Your task to perform on an android device: Go to Google maps Image 0: 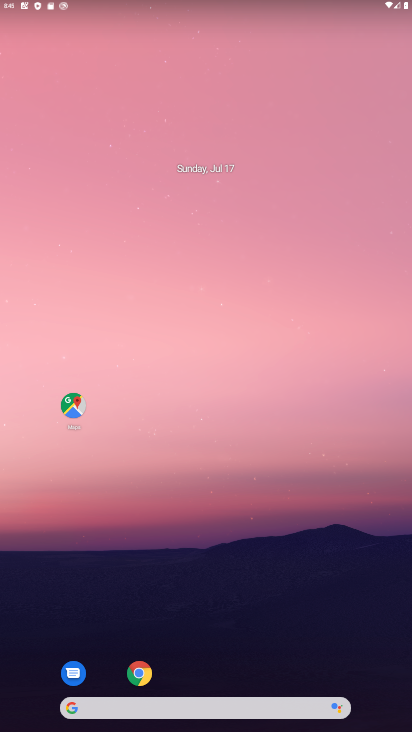
Step 0: drag from (243, 667) to (285, 69)
Your task to perform on an android device: Go to Google maps Image 1: 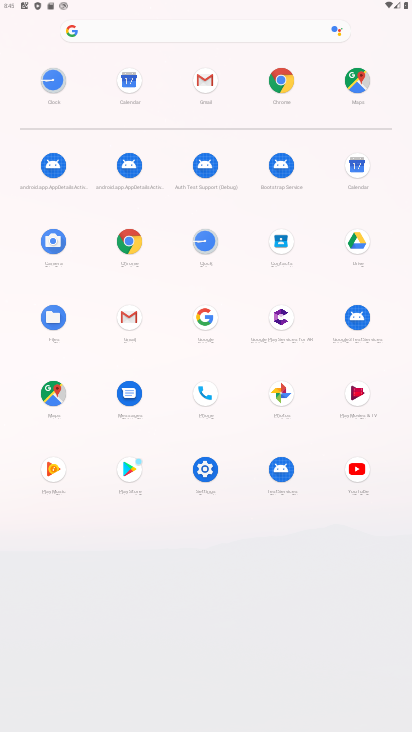
Step 1: drag from (246, 410) to (238, 64)
Your task to perform on an android device: Go to Google maps Image 2: 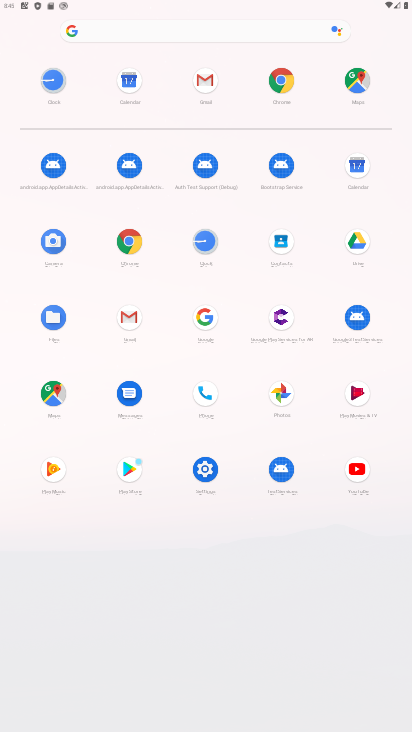
Step 2: drag from (215, 549) to (241, 106)
Your task to perform on an android device: Go to Google maps Image 3: 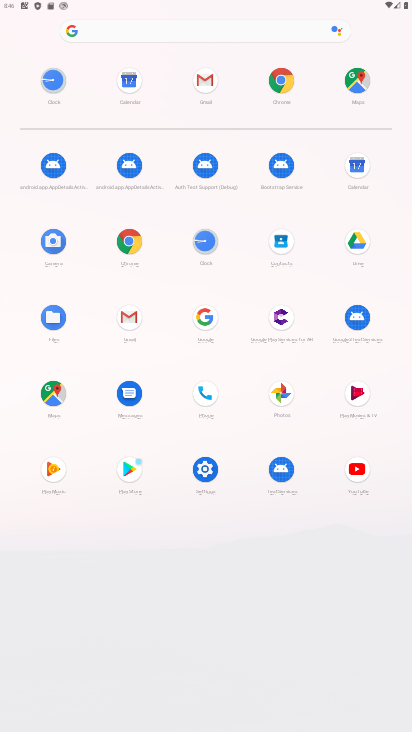
Step 3: click (52, 395)
Your task to perform on an android device: Go to Google maps Image 4: 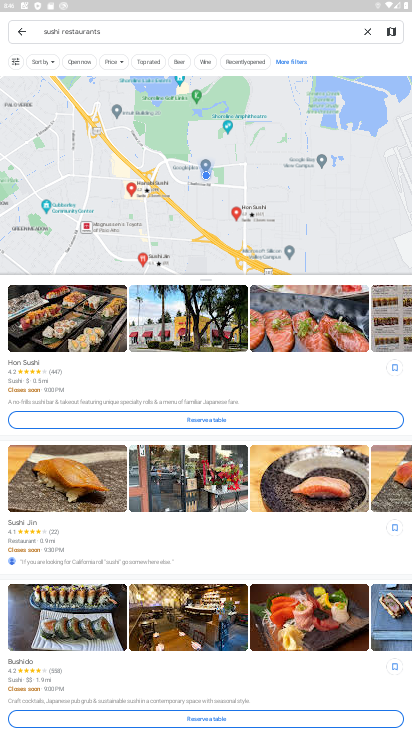
Step 4: click (58, 399)
Your task to perform on an android device: Go to Google maps Image 5: 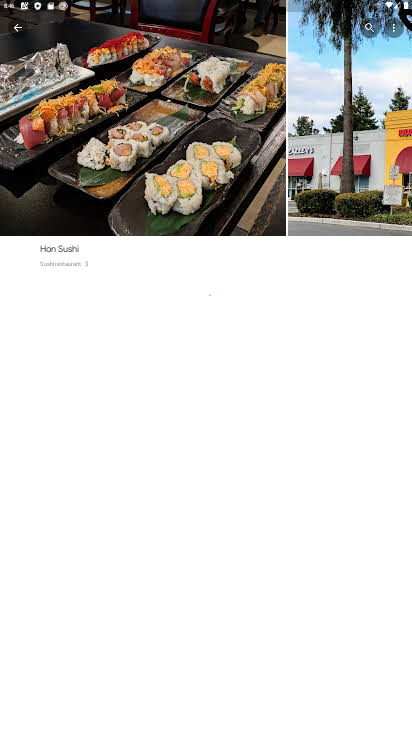
Step 5: click (40, 391)
Your task to perform on an android device: Go to Google maps Image 6: 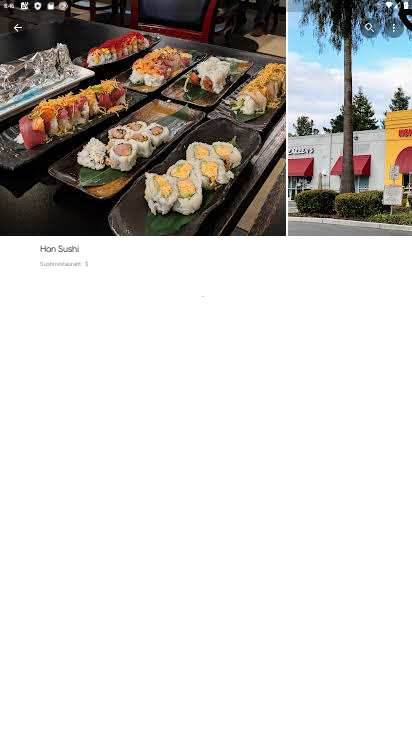
Step 6: click (56, 392)
Your task to perform on an android device: Go to Google maps Image 7: 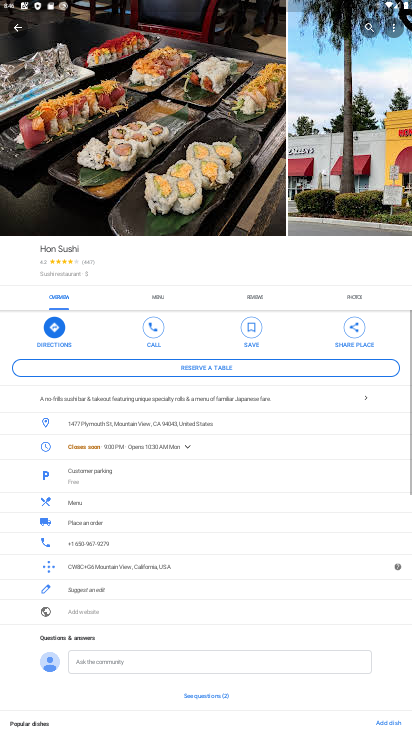
Step 7: click (56, 394)
Your task to perform on an android device: Go to Google maps Image 8: 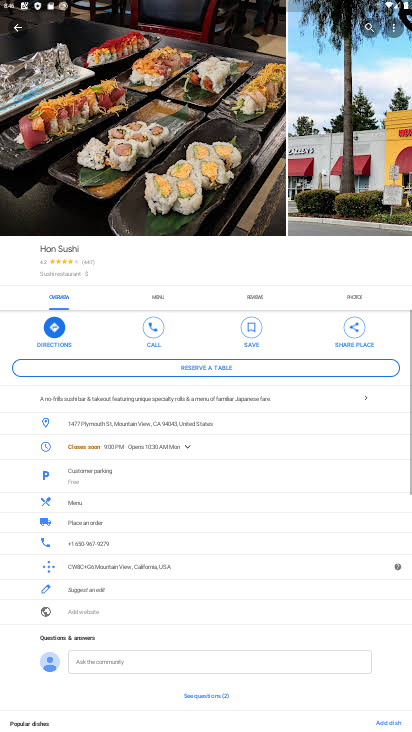
Step 8: task complete